Your task to perform on an android device: Open battery settings Image 0: 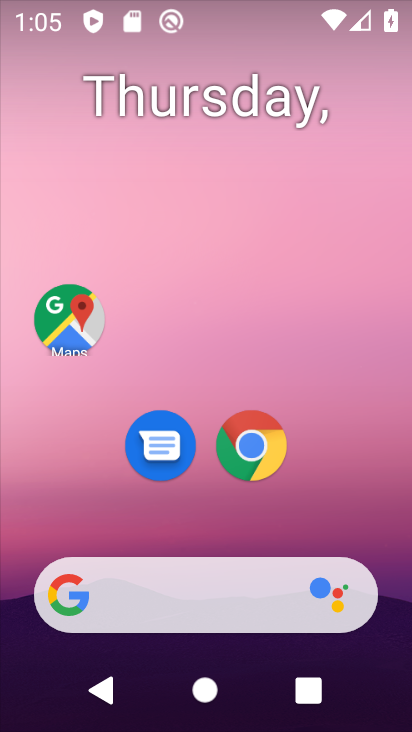
Step 0: press home button
Your task to perform on an android device: Open battery settings Image 1: 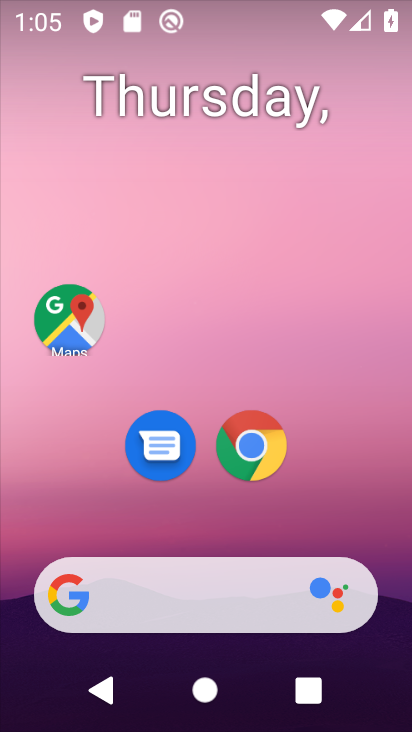
Step 1: drag from (17, 576) to (217, 139)
Your task to perform on an android device: Open battery settings Image 2: 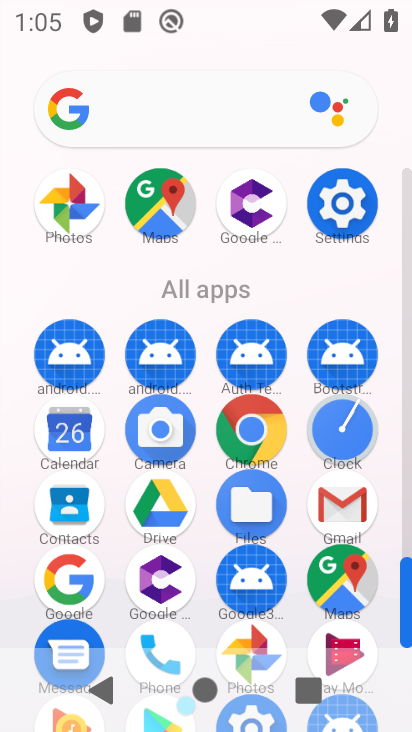
Step 2: click (349, 206)
Your task to perform on an android device: Open battery settings Image 3: 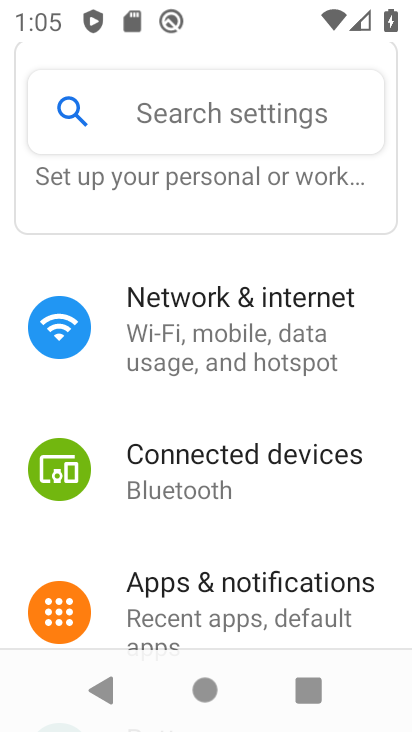
Step 3: drag from (32, 514) to (224, 197)
Your task to perform on an android device: Open battery settings Image 4: 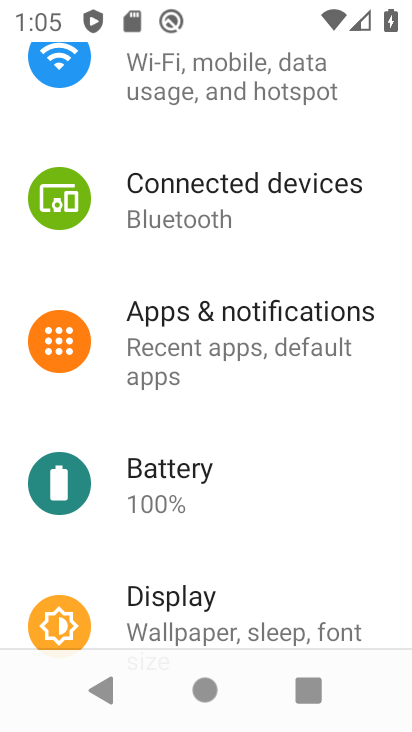
Step 4: click (157, 491)
Your task to perform on an android device: Open battery settings Image 5: 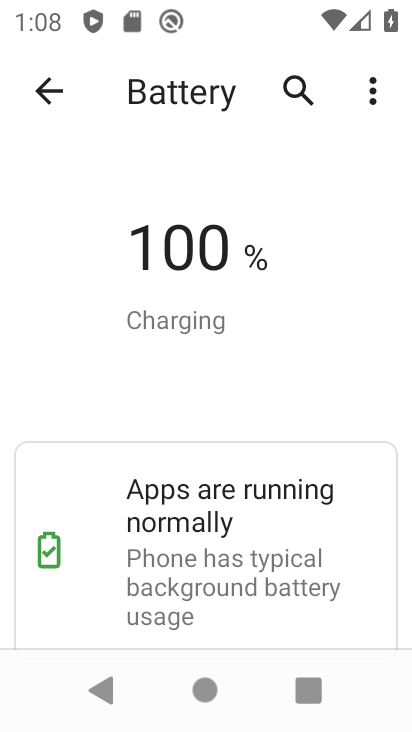
Step 5: task complete